Your task to perform on an android device: turn off smart reply in the gmail app Image 0: 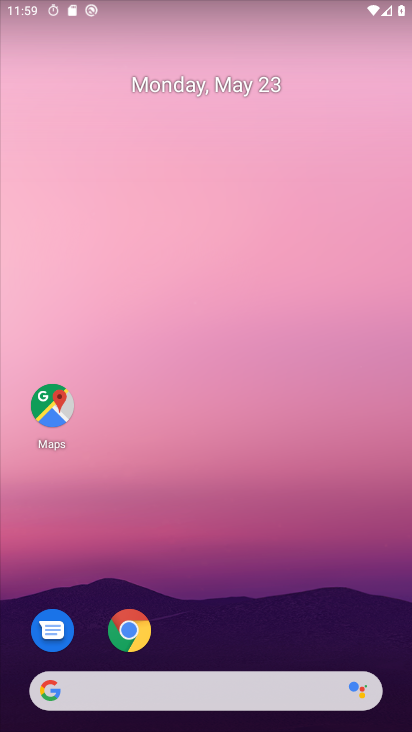
Step 0: drag from (187, 632) to (270, 17)
Your task to perform on an android device: turn off smart reply in the gmail app Image 1: 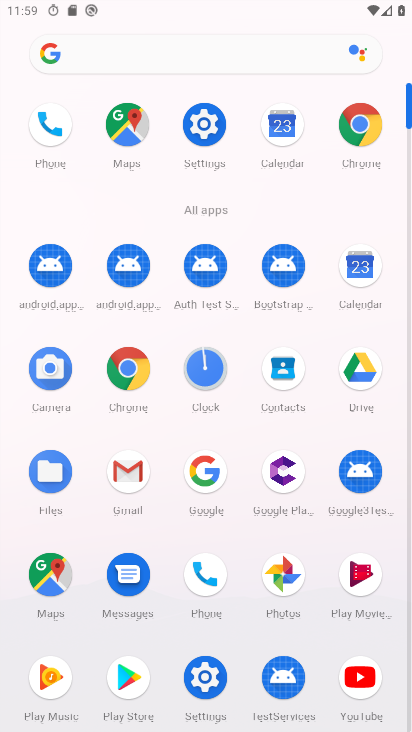
Step 1: click (139, 484)
Your task to perform on an android device: turn off smart reply in the gmail app Image 2: 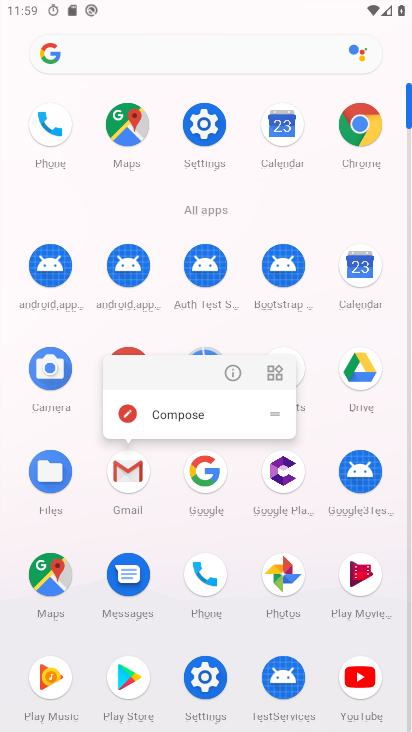
Step 2: click (125, 479)
Your task to perform on an android device: turn off smart reply in the gmail app Image 3: 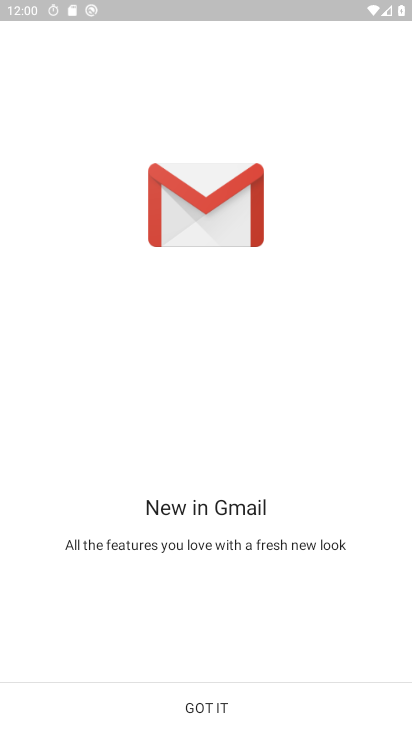
Step 3: click (229, 715)
Your task to perform on an android device: turn off smart reply in the gmail app Image 4: 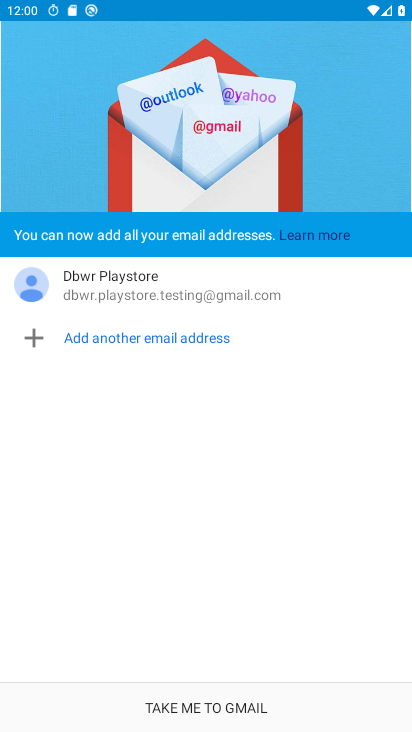
Step 4: click (196, 702)
Your task to perform on an android device: turn off smart reply in the gmail app Image 5: 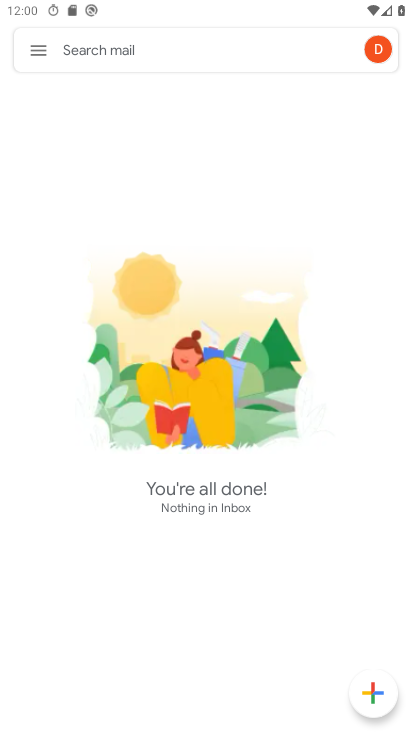
Step 5: click (30, 43)
Your task to perform on an android device: turn off smart reply in the gmail app Image 6: 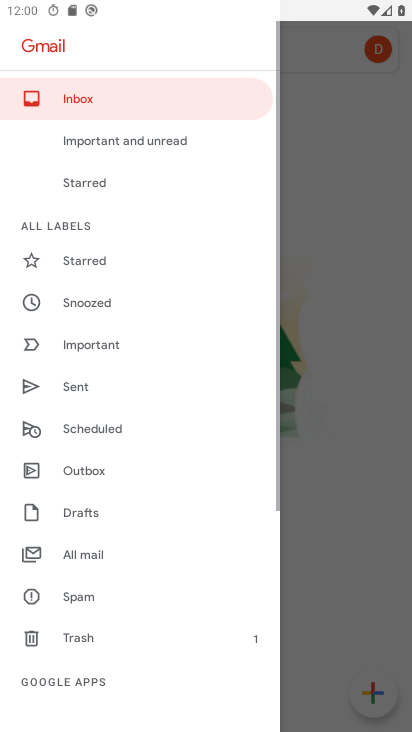
Step 6: drag from (95, 649) to (110, 375)
Your task to perform on an android device: turn off smart reply in the gmail app Image 7: 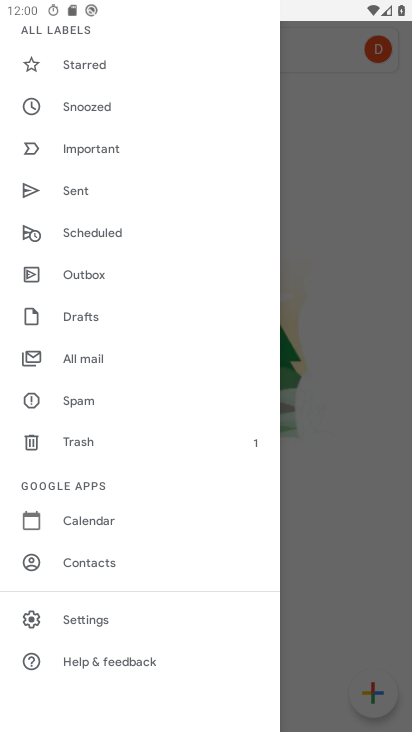
Step 7: click (82, 616)
Your task to perform on an android device: turn off smart reply in the gmail app Image 8: 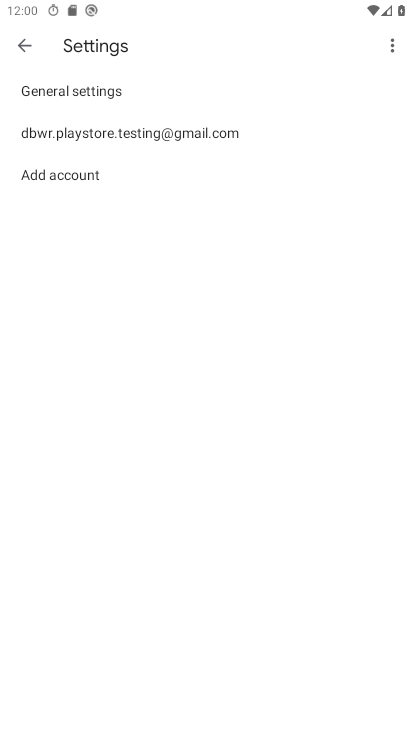
Step 8: click (104, 133)
Your task to perform on an android device: turn off smart reply in the gmail app Image 9: 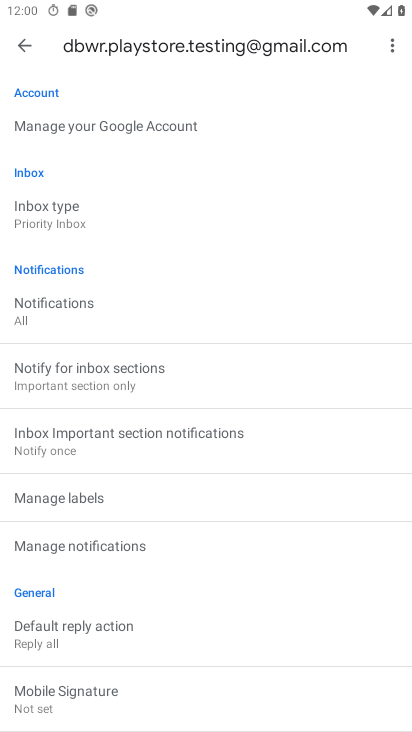
Step 9: drag from (101, 409) to (156, 243)
Your task to perform on an android device: turn off smart reply in the gmail app Image 10: 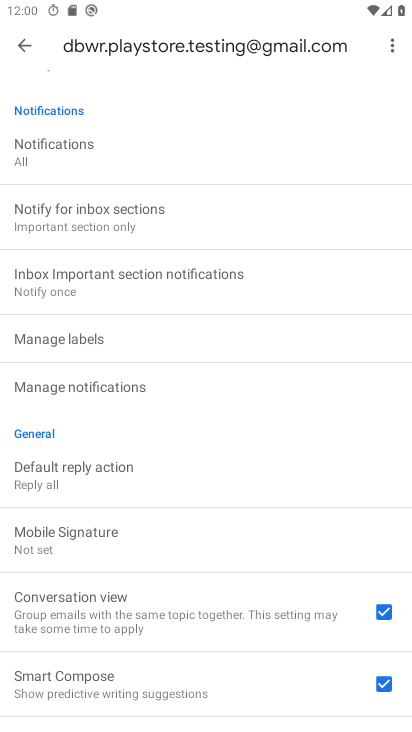
Step 10: drag from (142, 504) to (186, 369)
Your task to perform on an android device: turn off smart reply in the gmail app Image 11: 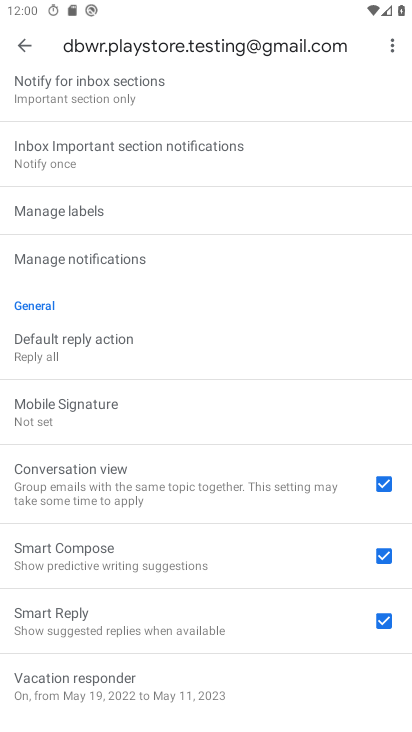
Step 11: click (384, 623)
Your task to perform on an android device: turn off smart reply in the gmail app Image 12: 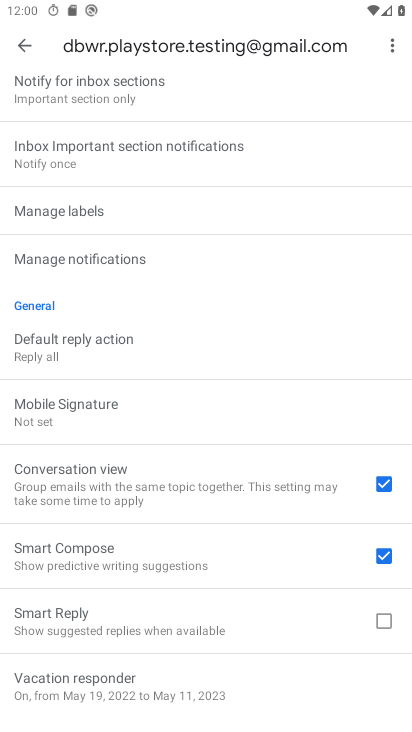
Step 12: task complete